Your task to perform on an android device: read, delete, or share a saved page in the chrome app Image 0: 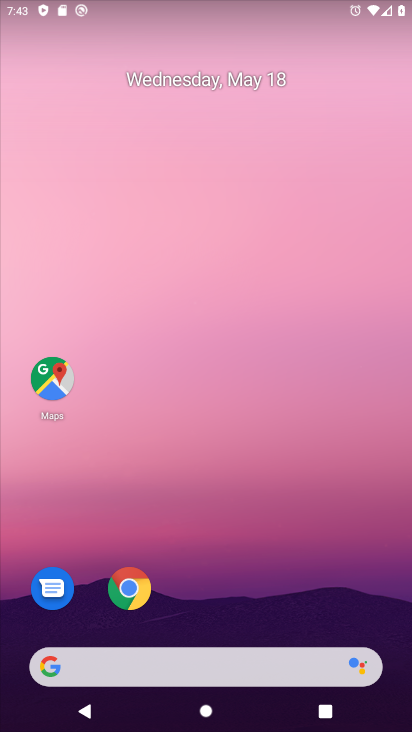
Step 0: click (139, 580)
Your task to perform on an android device: read, delete, or share a saved page in the chrome app Image 1: 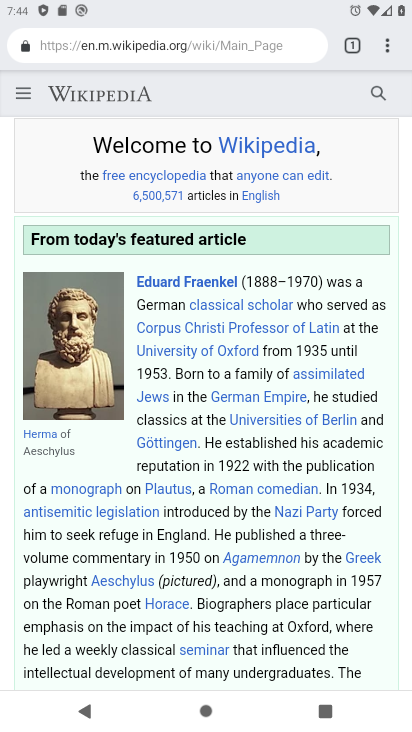
Step 1: click (386, 49)
Your task to perform on an android device: read, delete, or share a saved page in the chrome app Image 2: 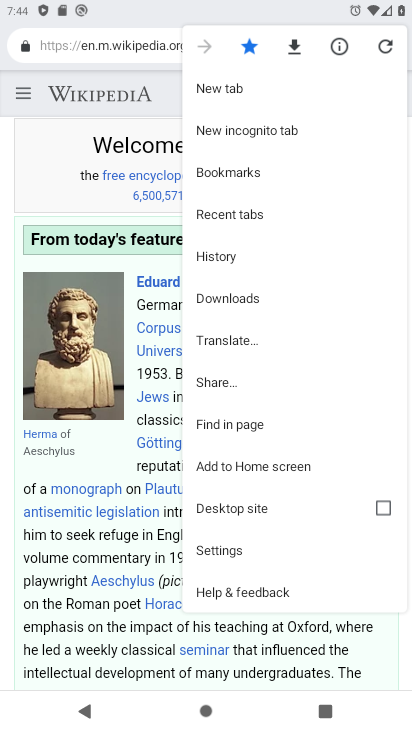
Step 2: click (246, 297)
Your task to perform on an android device: read, delete, or share a saved page in the chrome app Image 3: 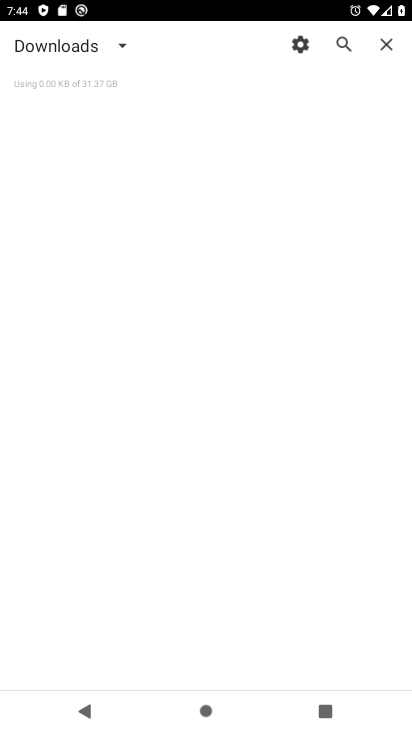
Step 3: task complete